Your task to perform on an android device: move a message to another label in the gmail app Image 0: 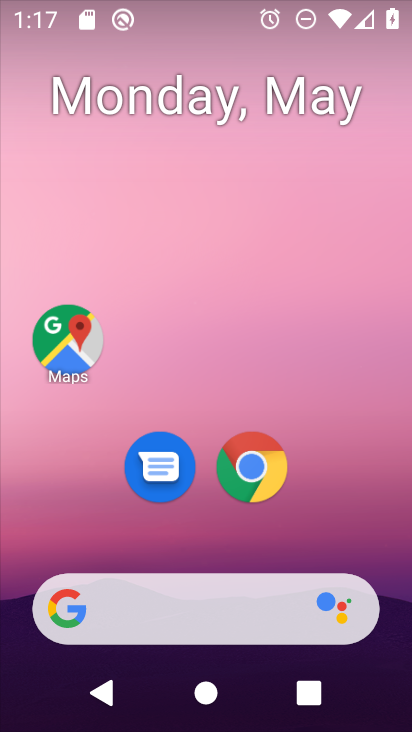
Step 0: drag from (368, 565) to (364, 5)
Your task to perform on an android device: move a message to another label in the gmail app Image 1: 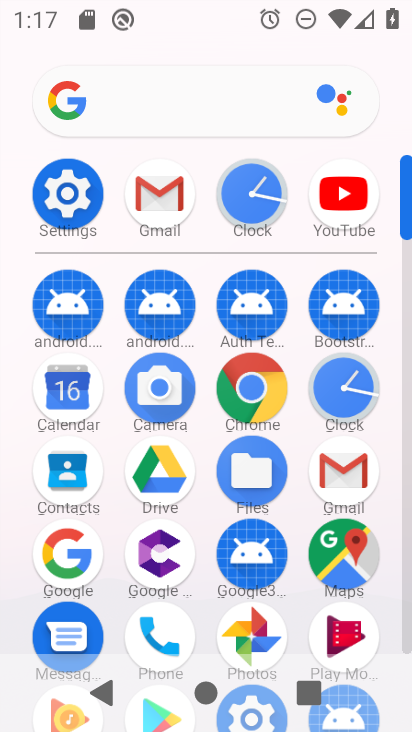
Step 1: click (154, 191)
Your task to perform on an android device: move a message to another label in the gmail app Image 2: 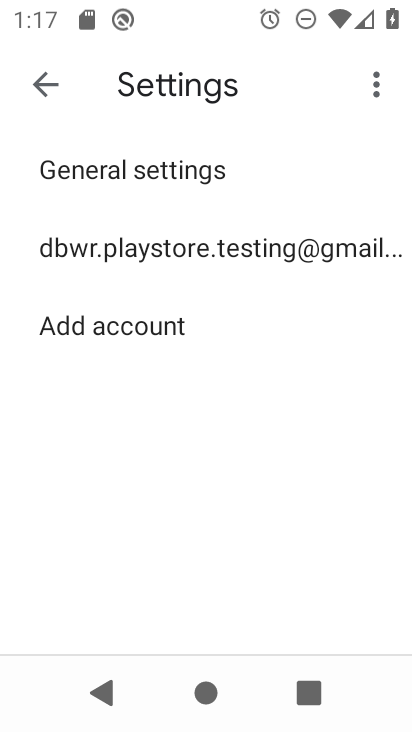
Step 2: click (162, 256)
Your task to perform on an android device: move a message to another label in the gmail app Image 3: 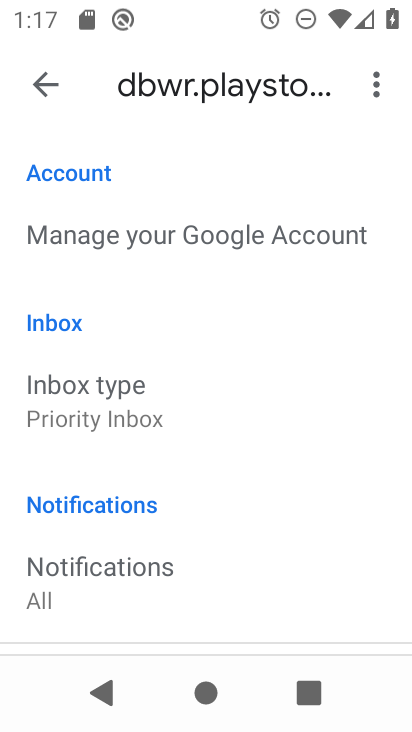
Step 3: click (38, 91)
Your task to perform on an android device: move a message to another label in the gmail app Image 4: 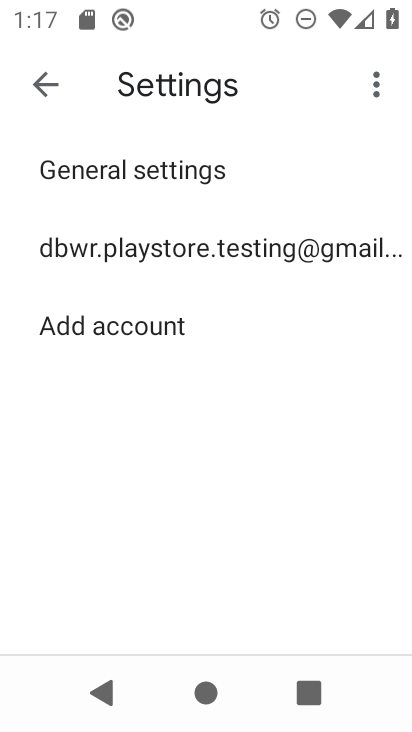
Step 4: click (38, 92)
Your task to perform on an android device: move a message to another label in the gmail app Image 5: 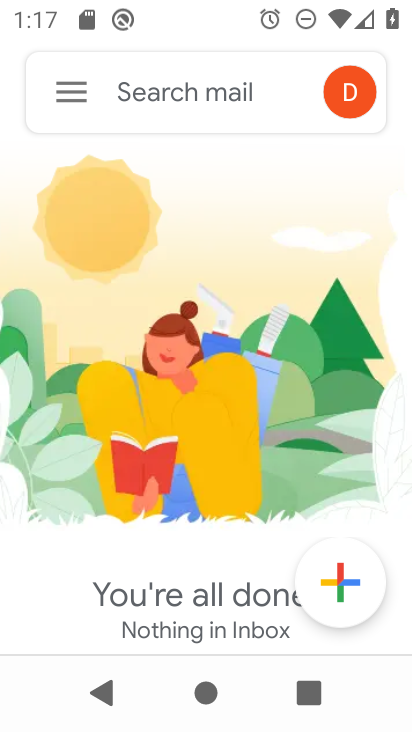
Step 5: click (82, 85)
Your task to perform on an android device: move a message to another label in the gmail app Image 6: 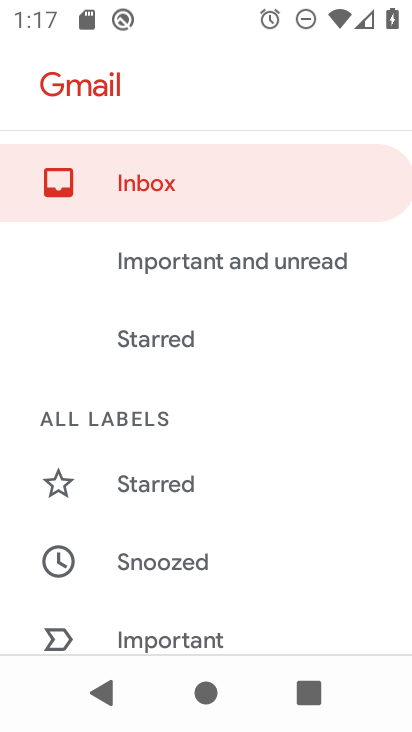
Step 6: drag from (195, 549) to (189, 115)
Your task to perform on an android device: move a message to another label in the gmail app Image 7: 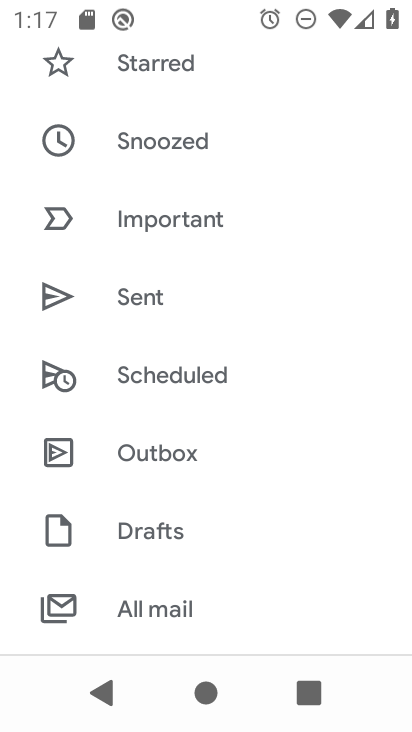
Step 7: drag from (196, 572) to (207, 195)
Your task to perform on an android device: move a message to another label in the gmail app Image 8: 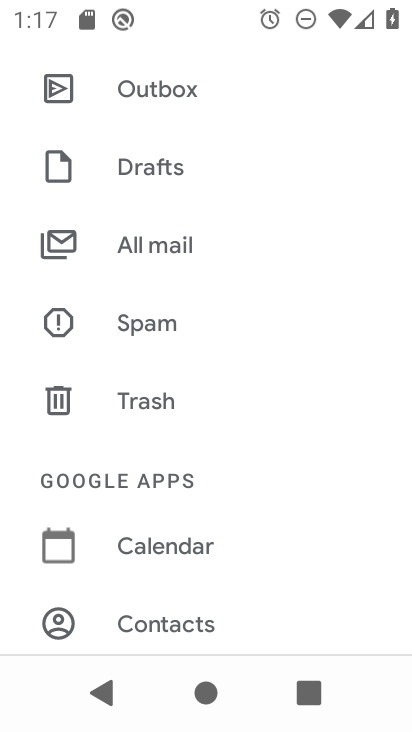
Step 8: click (166, 250)
Your task to perform on an android device: move a message to another label in the gmail app Image 9: 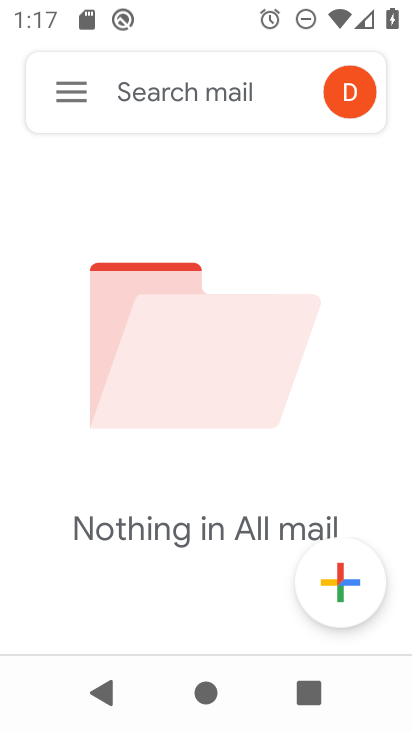
Step 9: task complete